Your task to perform on an android device: Open network settings Image 0: 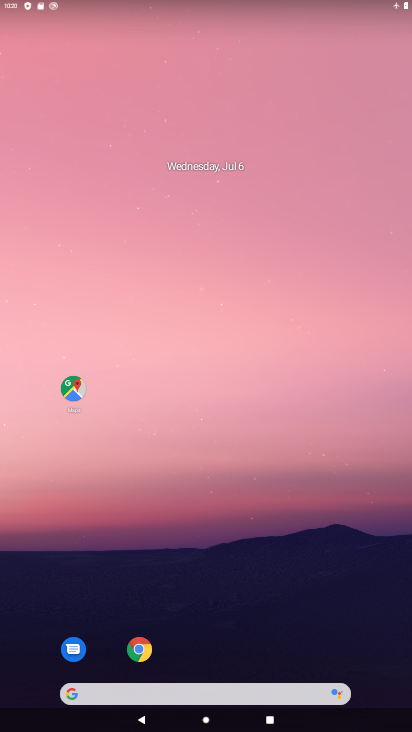
Step 0: drag from (381, 694) to (322, 195)
Your task to perform on an android device: Open network settings Image 1: 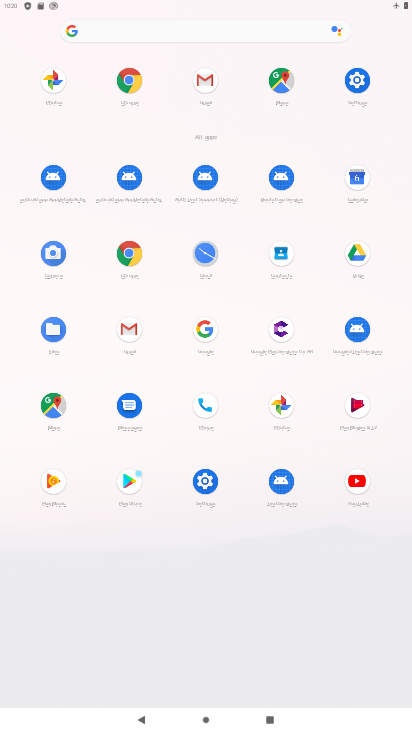
Step 1: click (351, 76)
Your task to perform on an android device: Open network settings Image 2: 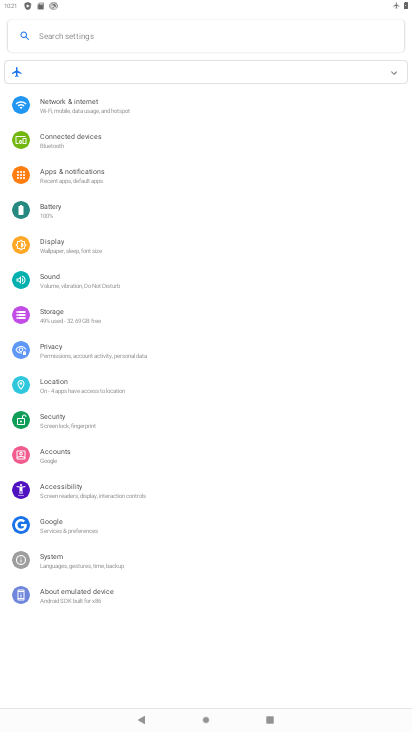
Step 2: click (61, 104)
Your task to perform on an android device: Open network settings Image 3: 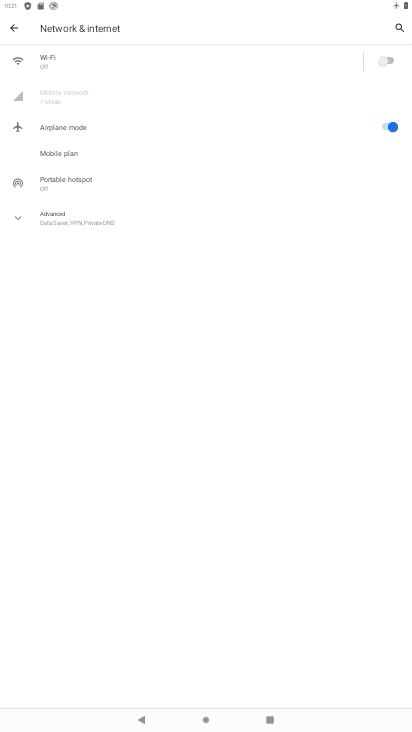
Step 3: task complete